Your task to perform on an android device: Open Google Chrome and click the shortcut for Amazon.com Image 0: 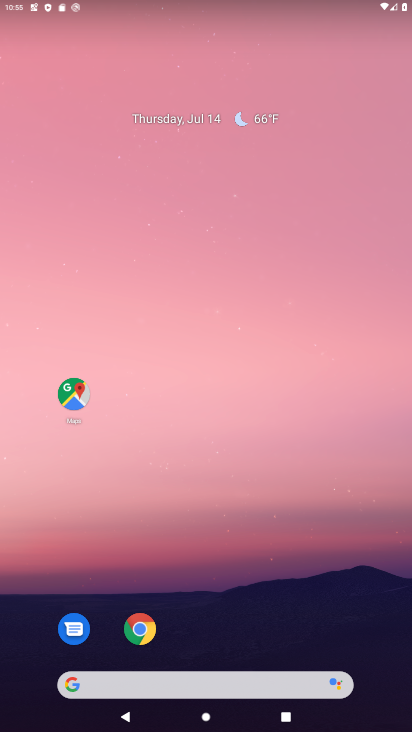
Step 0: click (138, 632)
Your task to perform on an android device: Open Google Chrome and click the shortcut for Amazon.com Image 1: 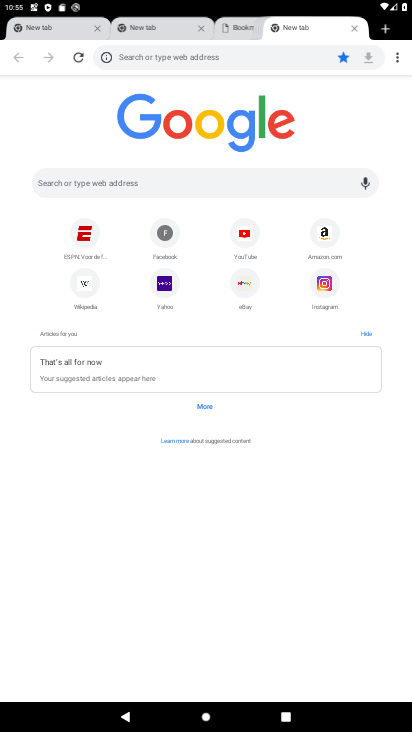
Step 1: click (318, 233)
Your task to perform on an android device: Open Google Chrome and click the shortcut for Amazon.com Image 2: 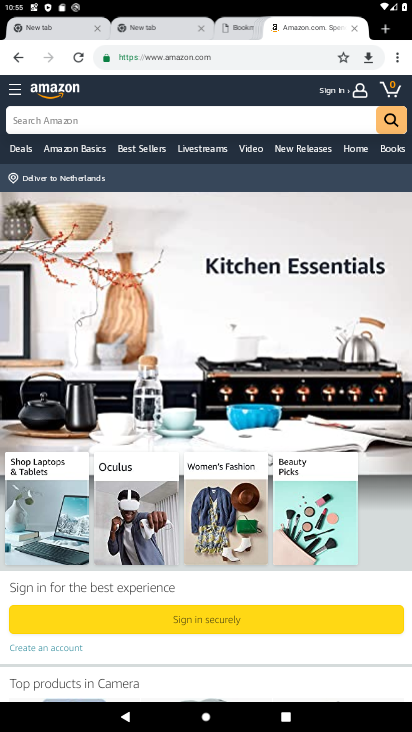
Step 2: task complete